Your task to perform on an android device: Go to settings Image 0: 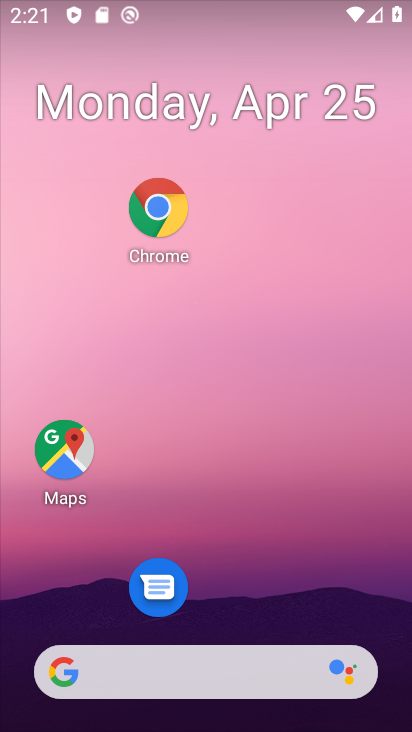
Step 0: drag from (304, 542) to (299, 139)
Your task to perform on an android device: Go to settings Image 1: 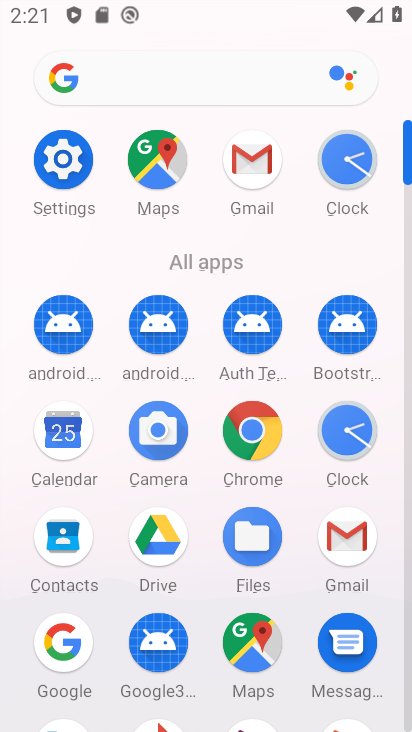
Step 1: click (59, 188)
Your task to perform on an android device: Go to settings Image 2: 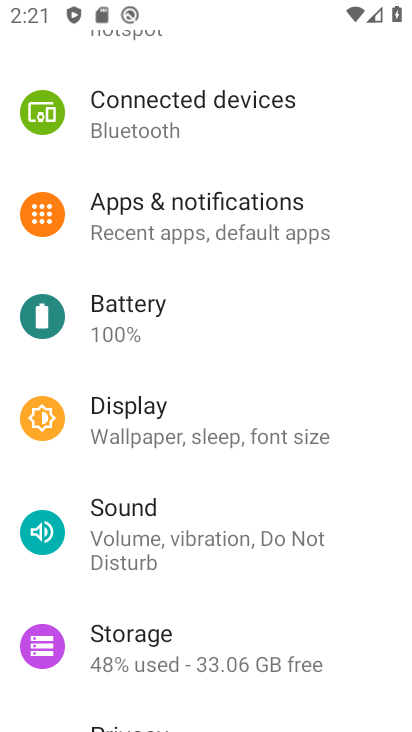
Step 2: task complete